Your task to perform on an android device: Open battery settings Image 0: 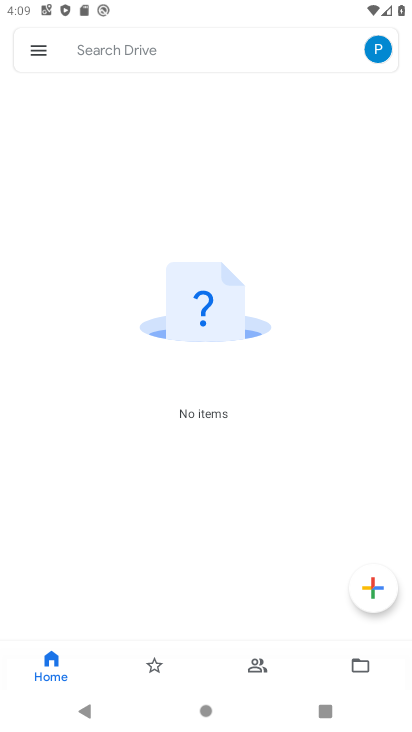
Step 0: press home button
Your task to perform on an android device: Open battery settings Image 1: 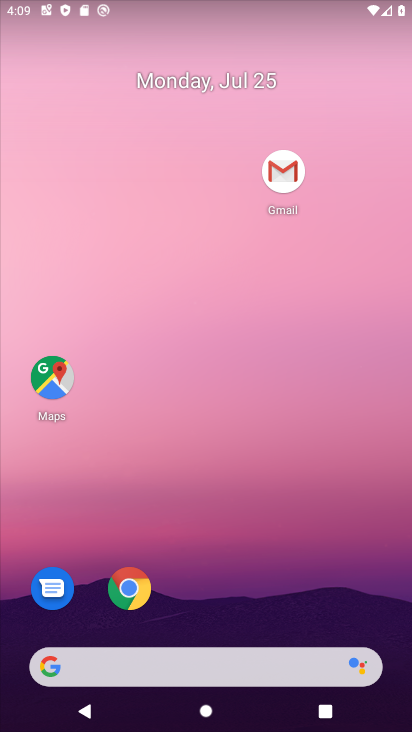
Step 1: drag from (285, 572) to (74, 32)
Your task to perform on an android device: Open battery settings Image 2: 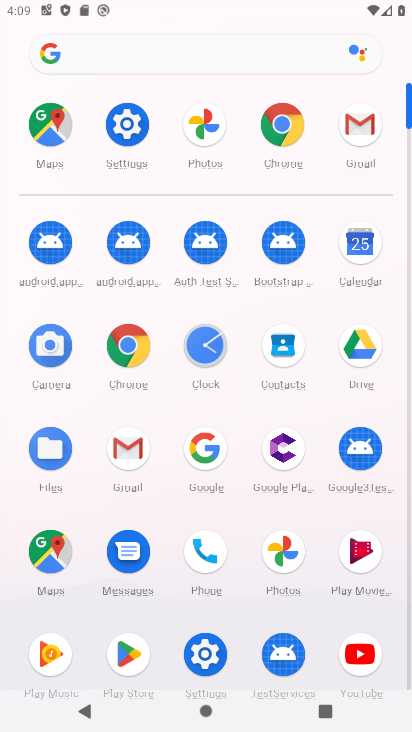
Step 2: click (133, 123)
Your task to perform on an android device: Open battery settings Image 3: 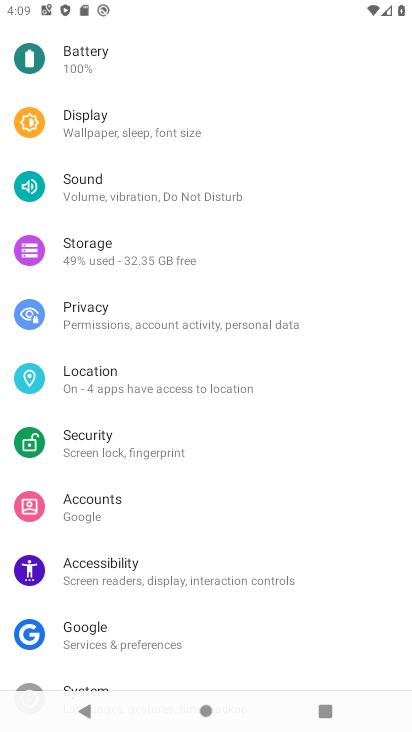
Step 3: drag from (186, 159) to (193, 505)
Your task to perform on an android device: Open battery settings Image 4: 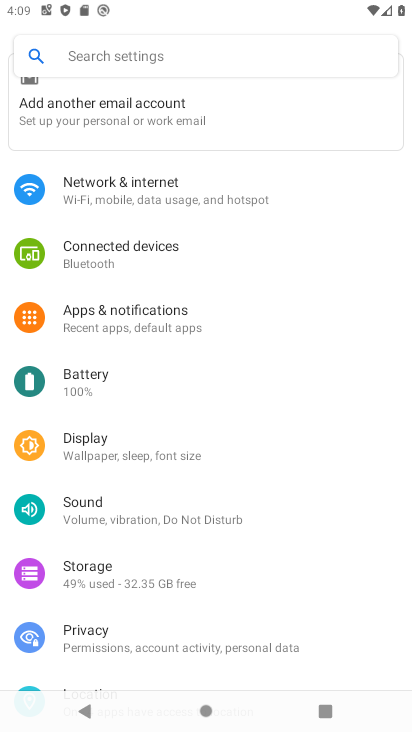
Step 4: click (104, 381)
Your task to perform on an android device: Open battery settings Image 5: 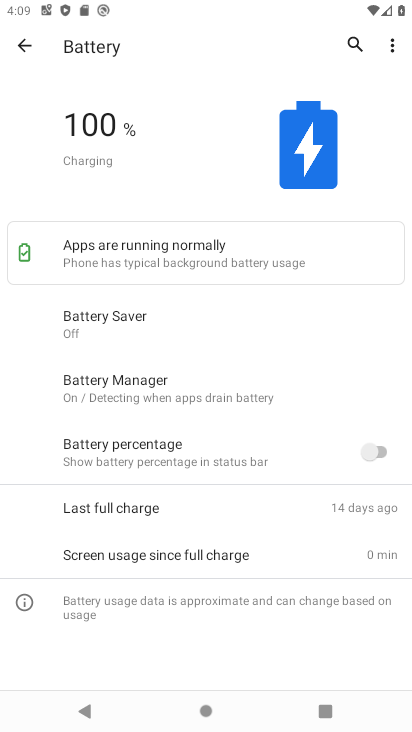
Step 5: task complete